Your task to perform on an android device: turn off smart reply in the gmail app Image 0: 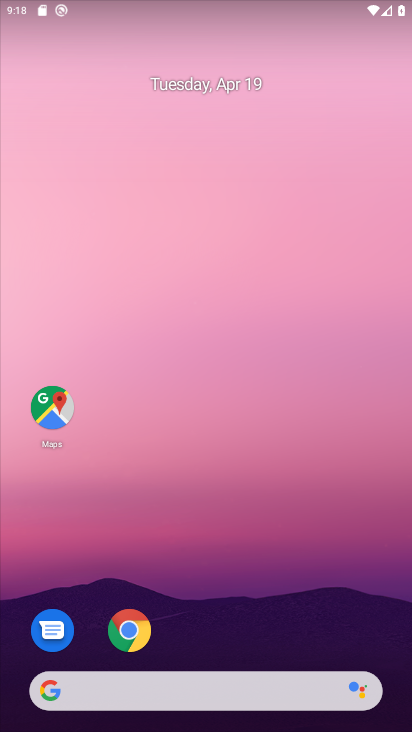
Step 0: drag from (210, 576) to (254, 157)
Your task to perform on an android device: turn off smart reply in the gmail app Image 1: 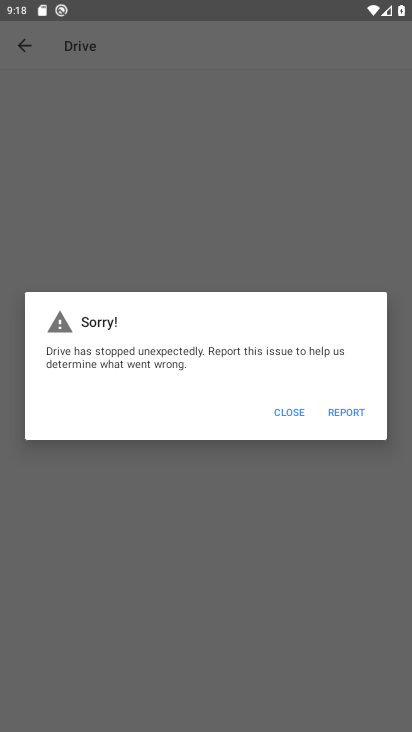
Step 1: press home button
Your task to perform on an android device: turn off smart reply in the gmail app Image 2: 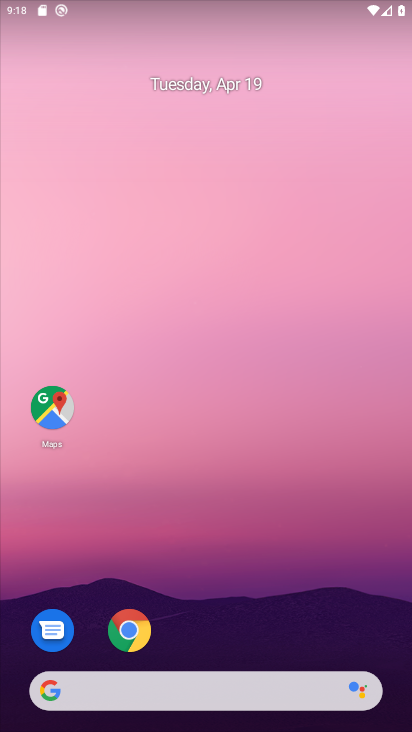
Step 2: drag from (250, 644) to (295, 124)
Your task to perform on an android device: turn off smart reply in the gmail app Image 3: 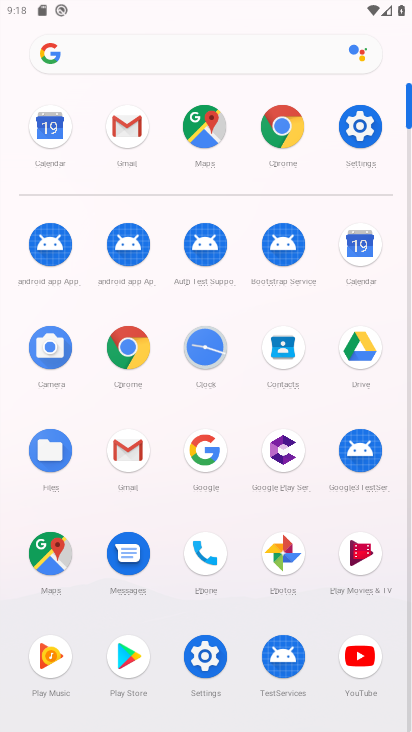
Step 3: click (132, 456)
Your task to perform on an android device: turn off smart reply in the gmail app Image 4: 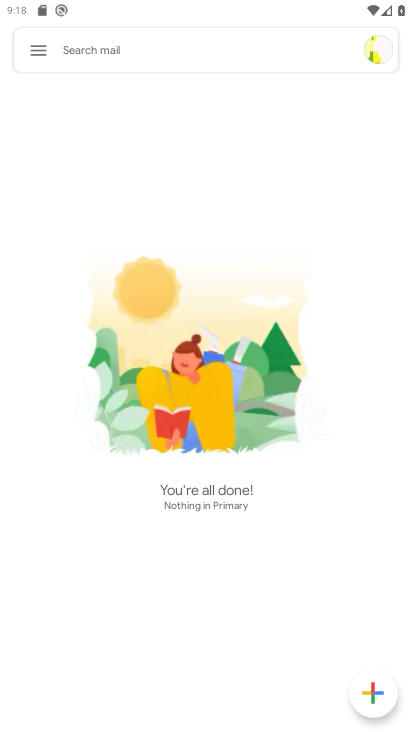
Step 4: click (33, 55)
Your task to perform on an android device: turn off smart reply in the gmail app Image 5: 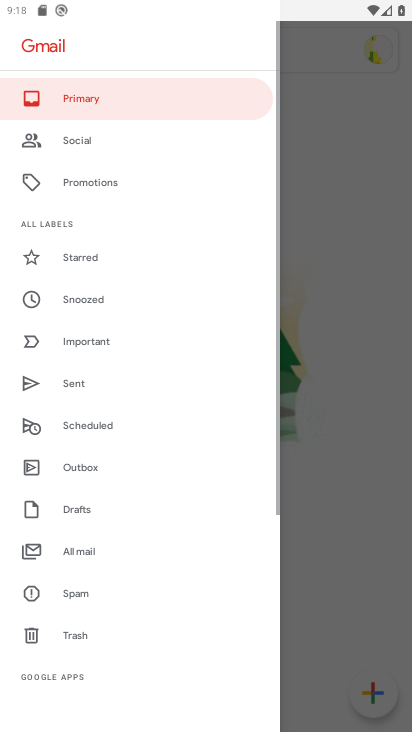
Step 5: drag from (102, 627) to (166, 269)
Your task to perform on an android device: turn off smart reply in the gmail app Image 6: 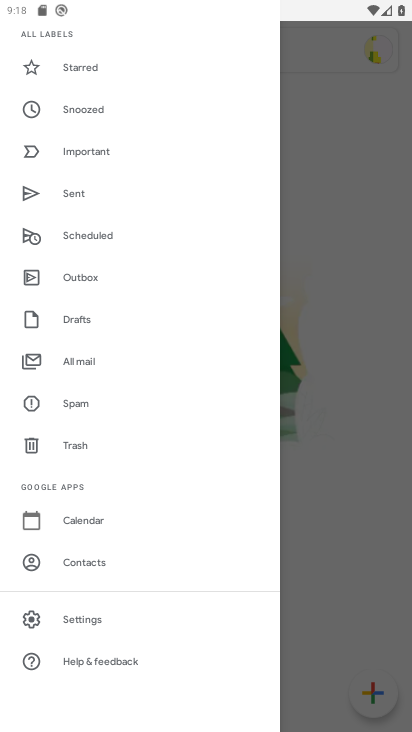
Step 6: click (105, 624)
Your task to perform on an android device: turn off smart reply in the gmail app Image 7: 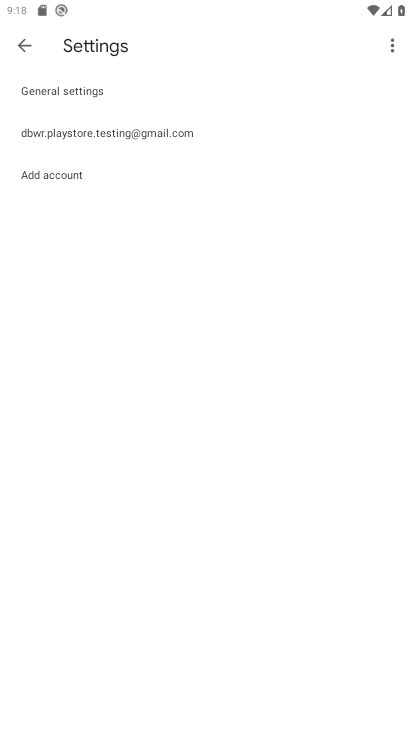
Step 7: click (165, 134)
Your task to perform on an android device: turn off smart reply in the gmail app Image 8: 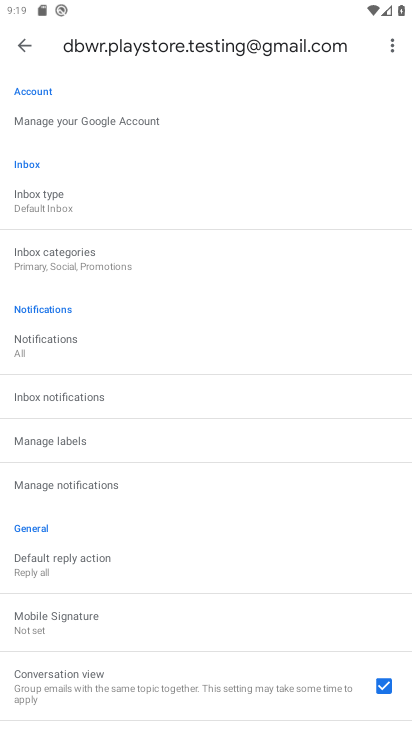
Step 8: drag from (129, 415) to (190, 138)
Your task to perform on an android device: turn off smart reply in the gmail app Image 9: 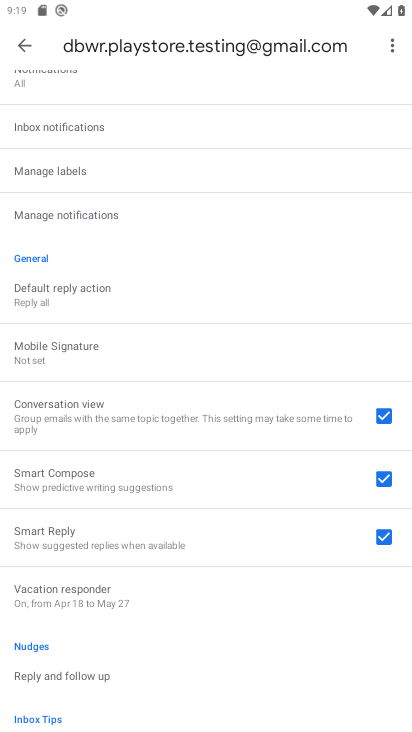
Step 9: click (387, 538)
Your task to perform on an android device: turn off smart reply in the gmail app Image 10: 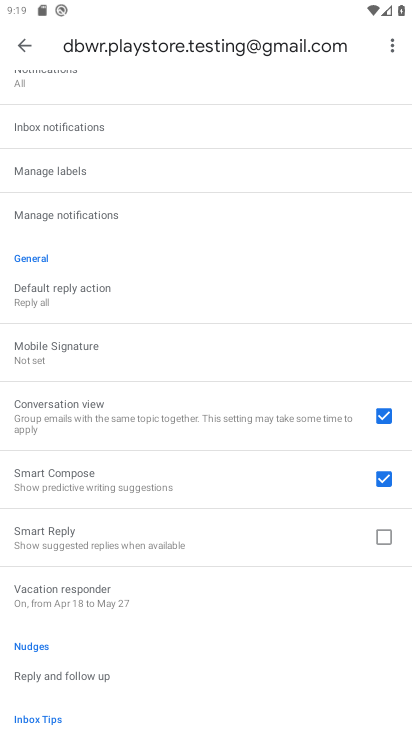
Step 10: task complete